Your task to perform on an android device: create a new album in the google photos Image 0: 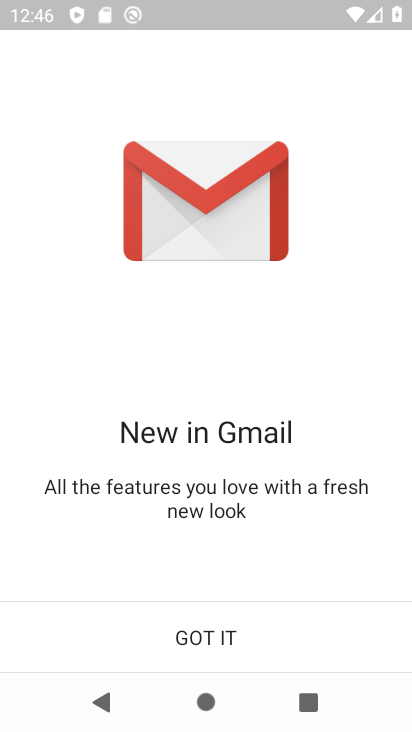
Step 0: press home button
Your task to perform on an android device: create a new album in the google photos Image 1: 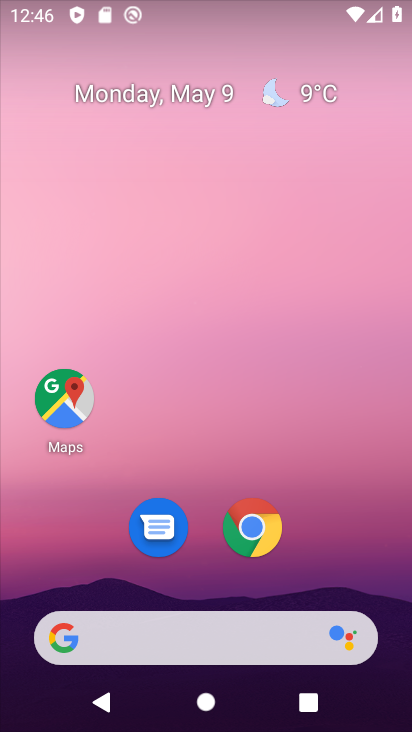
Step 1: drag from (340, 531) to (316, 57)
Your task to perform on an android device: create a new album in the google photos Image 2: 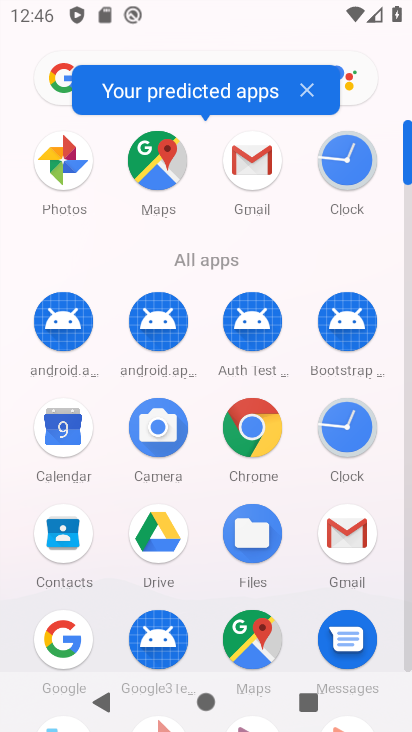
Step 2: click (79, 168)
Your task to perform on an android device: create a new album in the google photos Image 3: 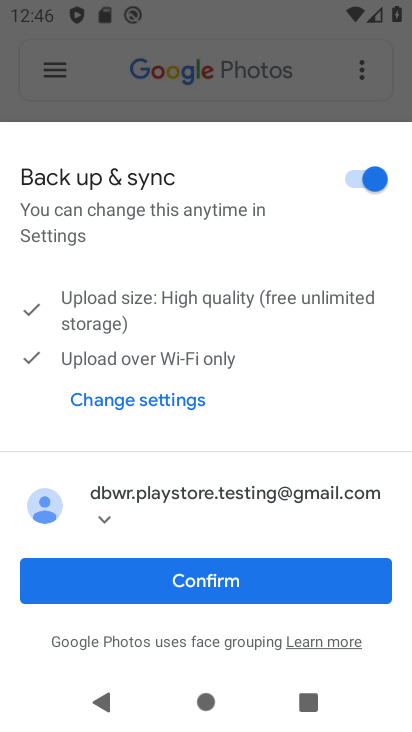
Step 3: click (311, 583)
Your task to perform on an android device: create a new album in the google photos Image 4: 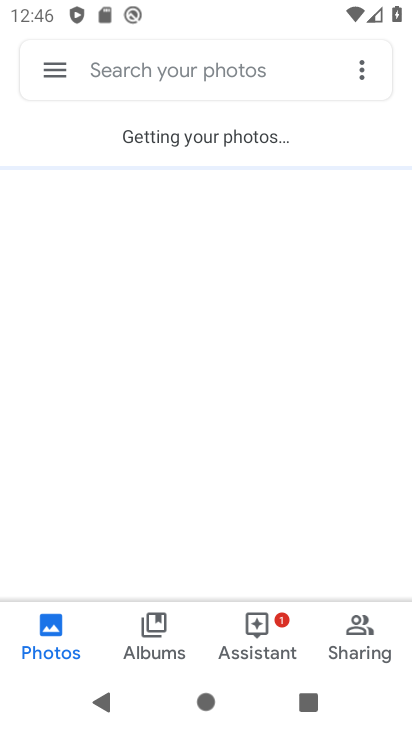
Step 4: click (150, 647)
Your task to perform on an android device: create a new album in the google photos Image 5: 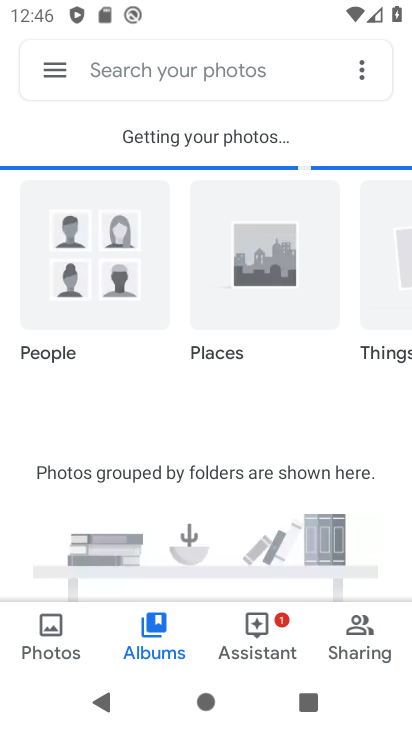
Step 5: click (361, 75)
Your task to perform on an android device: create a new album in the google photos Image 6: 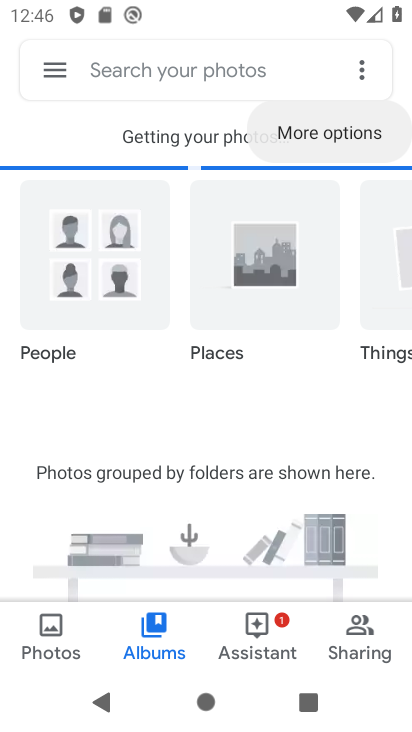
Step 6: click (365, 74)
Your task to perform on an android device: create a new album in the google photos Image 7: 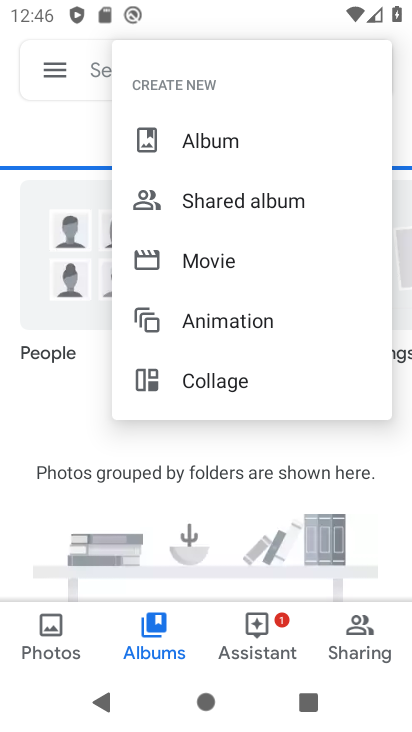
Step 7: click (269, 141)
Your task to perform on an android device: create a new album in the google photos Image 8: 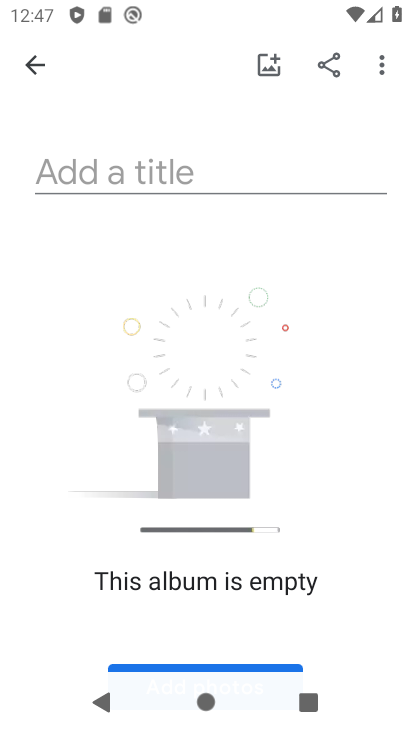
Step 8: click (165, 181)
Your task to perform on an android device: create a new album in the google photos Image 9: 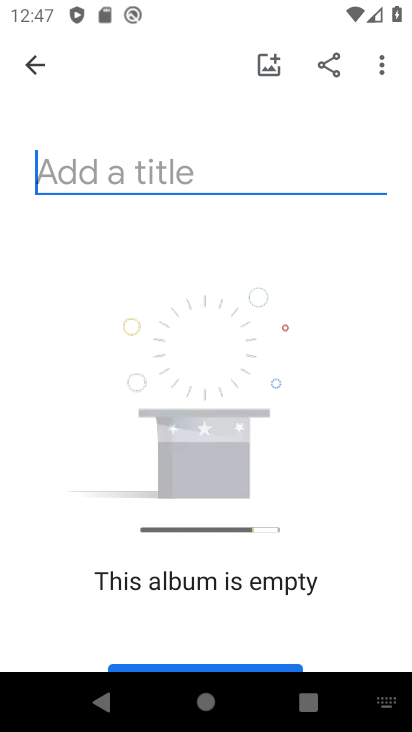
Step 9: type "234"
Your task to perform on an android device: create a new album in the google photos Image 10: 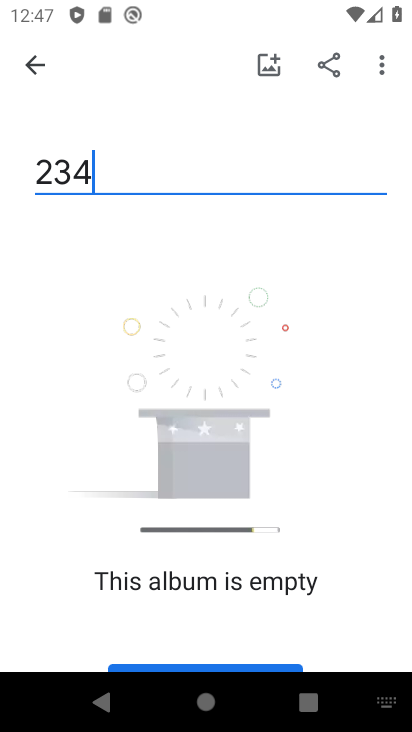
Step 10: click (274, 66)
Your task to perform on an android device: create a new album in the google photos Image 11: 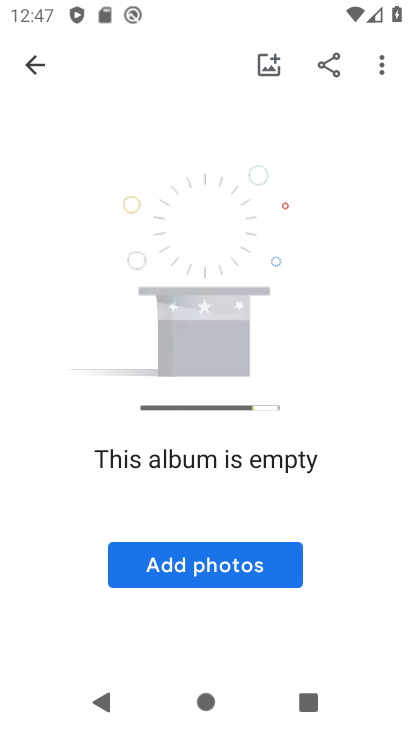
Step 11: click (203, 571)
Your task to perform on an android device: create a new album in the google photos Image 12: 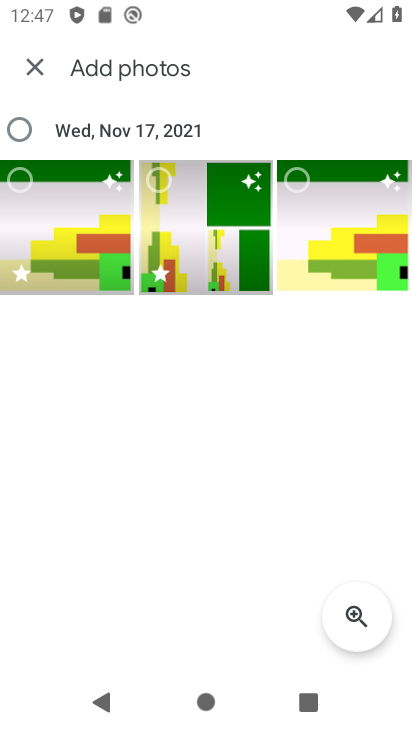
Step 12: click (86, 250)
Your task to perform on an android device: create a new album in the google photos Image 13: 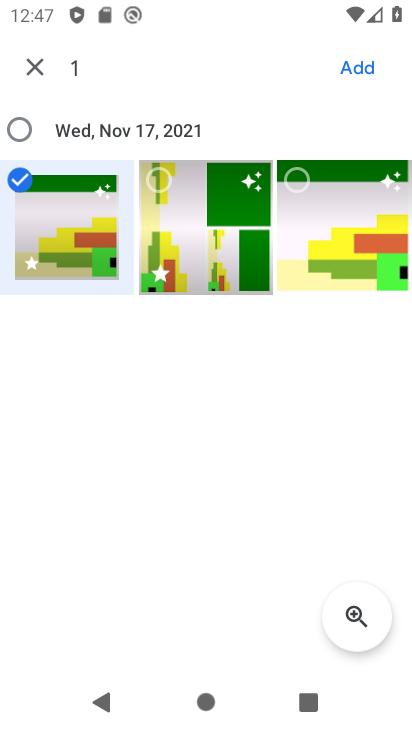
Step 13: click (369, 62)
Your task to perform on an android device: create a new album in the google photos Image 14: 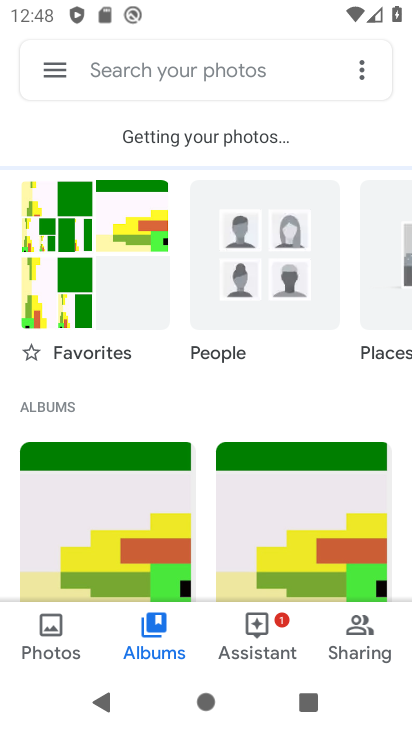
Step 14: task complete